Your task to perform on an android device: open a new tab in the chrome app Image 0: 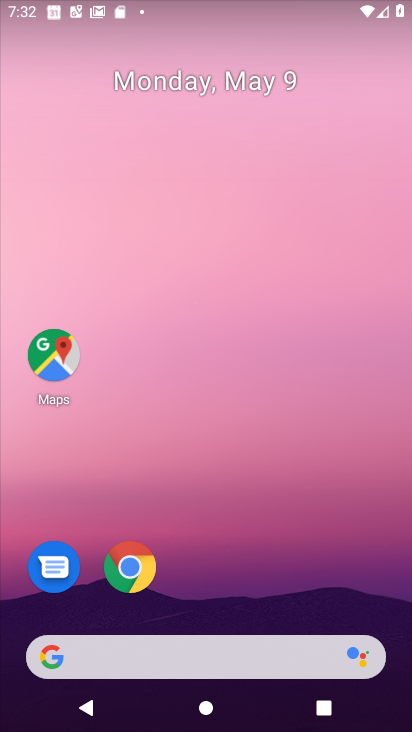
Step 0: click (196, 102)
Your task to perform on an android device: open a new tab in the chrome app Image 1: 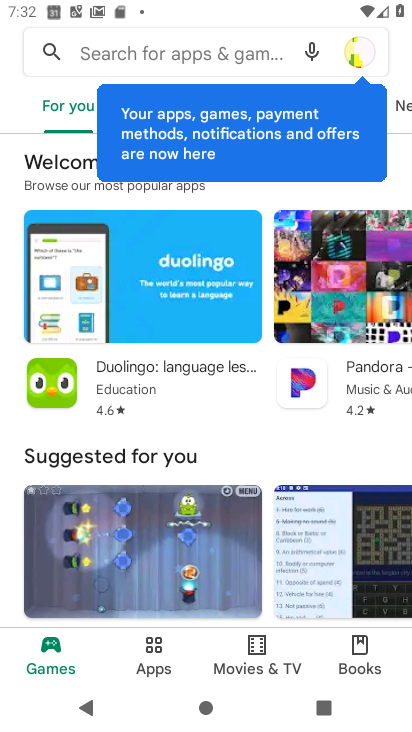
Step 1: press home button
Your task to perform on an android device: open a new tab in the chrome app Image 2: 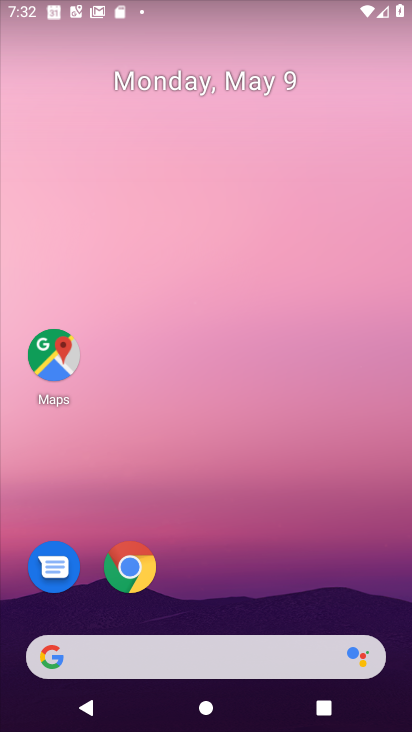
Step 2: click (130, 565)
Your task to perform on an android device: open a new tab in the chrome app Image 3: 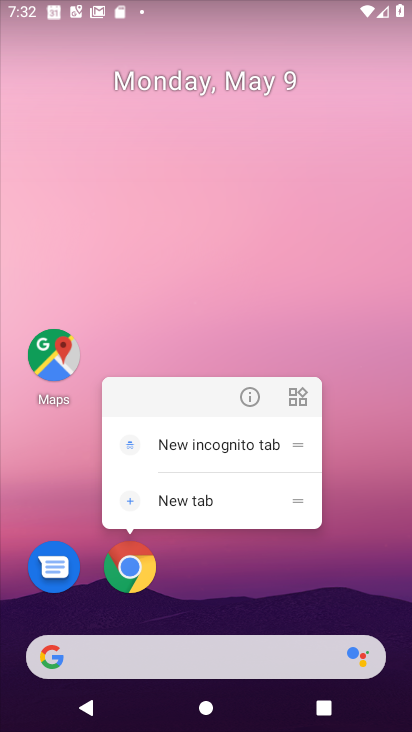
Step 3: click (249, 371)
Your task to perform on an android device: open a new tab in the chrome app Image 4: 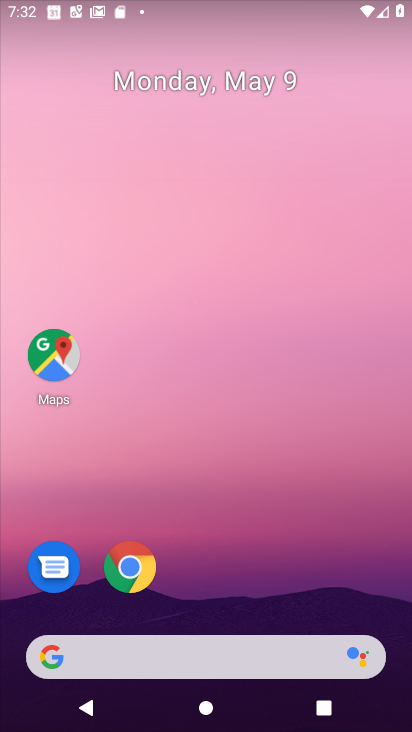
Step 4: drag from (214, 598) to (246, 13)
Your task to perform on an android device: open a new tab in the chrome app Image 5: 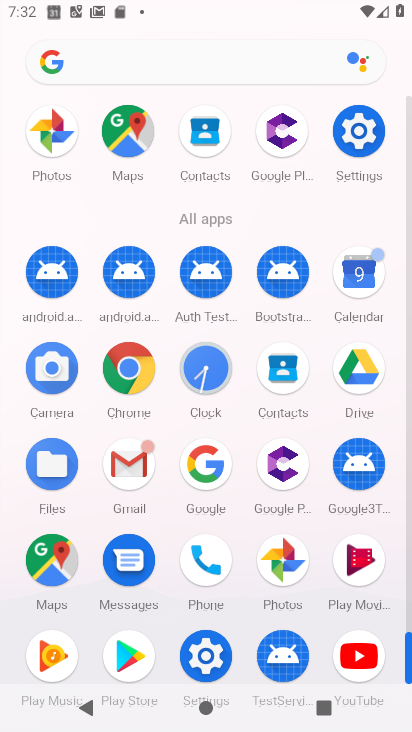
Step 5: click (121, 370)
Your task to perform on an android device: open a new tab in the chrome app Image 6: 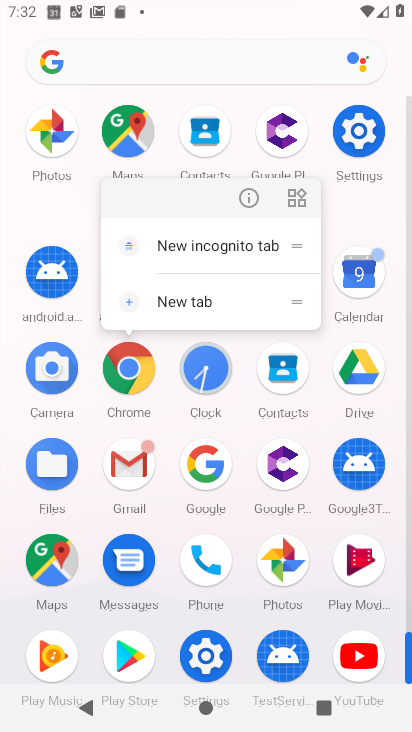
Step 6: click (242, 177)
Your task to perform on an android device: open a new tab in the chrome app Image 7: 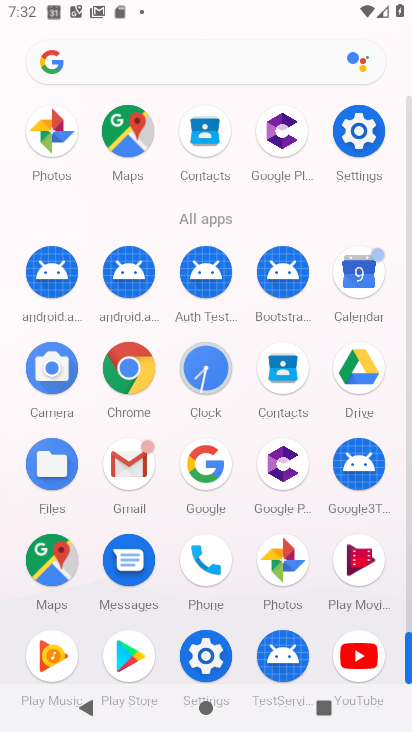
Step 7: click (129, 372)
Your task to perform on an android device: open a new tab in the chrome app Image 8: 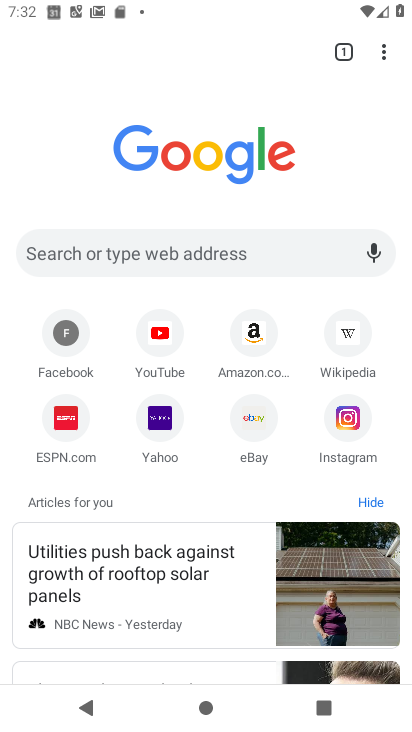
Step 8: drag from (208, 564) to (209, 256)
Your task to perform on an android device: open a new tab in the chrome app Image 9: 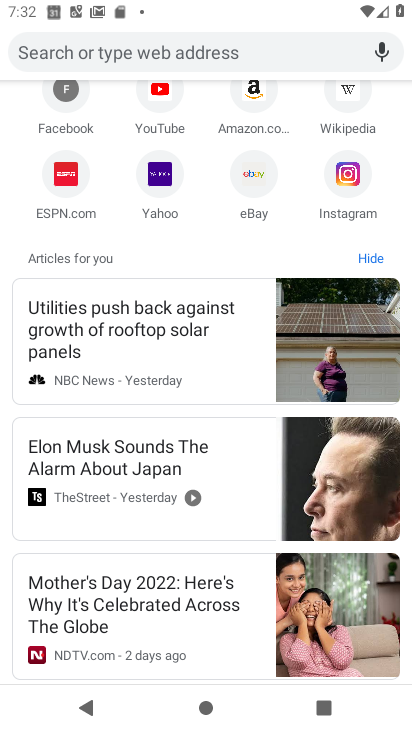
Step 9: drag from (198, 625) to (231, 233)
Your task to perform on an android device: open a new tab in the chrome app Image 10: 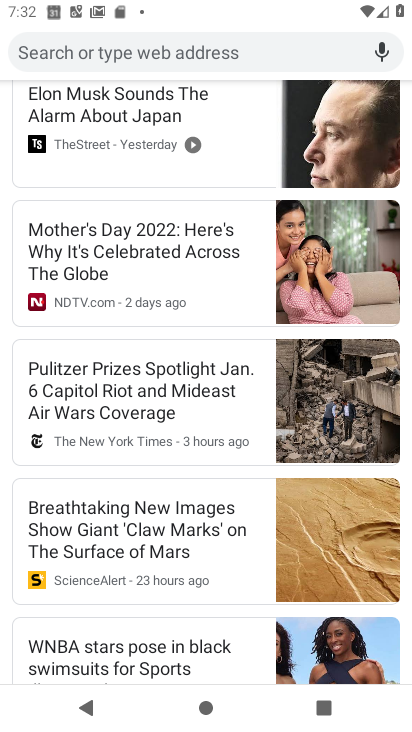
Step 10: drag from (240, 206) to (329, 727)
Your task to perform on an android device: open a new tab in the chrome app Image 11: 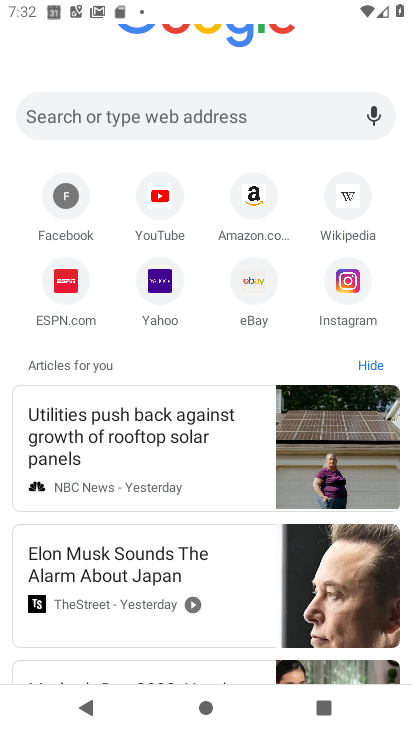
Step 11: drag from (195, 184) to (304, 703)
Your task to perform on an android device: open a new tab in the chrome app Image 12: 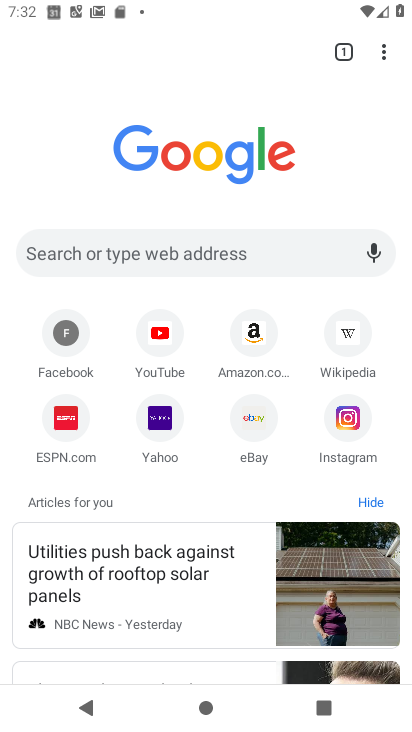
Step 12: click (348, 34)
Your task to perform on an android device: open a new tab in the chrome app Image 13: 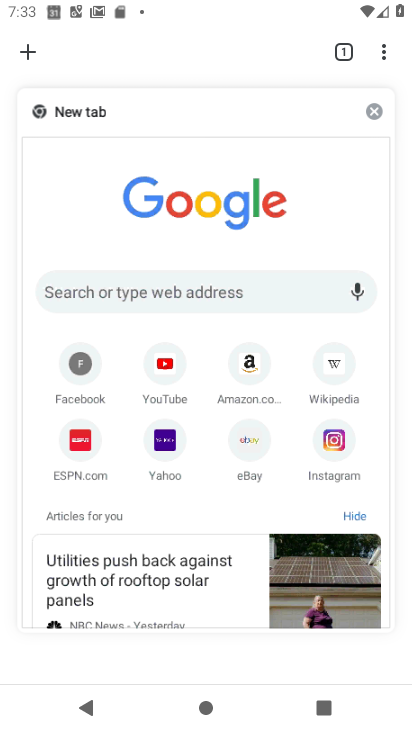
Step 13: click (18, 36)
Your task to perform on an android device: open a new tab in the chrome app Image 14: 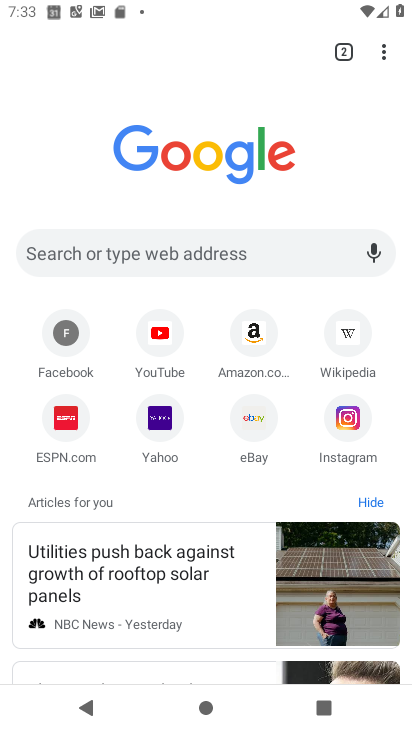
Step 14: task complete